Your task to perform on an android device: check out phone information Image 0: 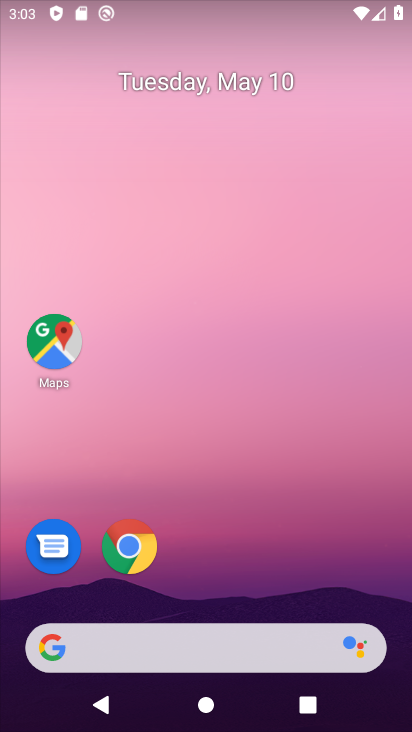
Step 0: drag from (219, 593) to (338, 14)
Your task to perform on an android device: check out phone information Image 1: 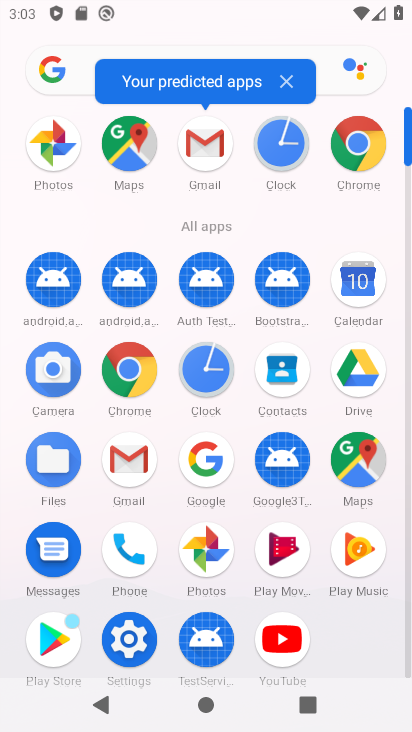
Step 1: click (127, 647)
Your task to perform on an android device: check out phone information Image 2: 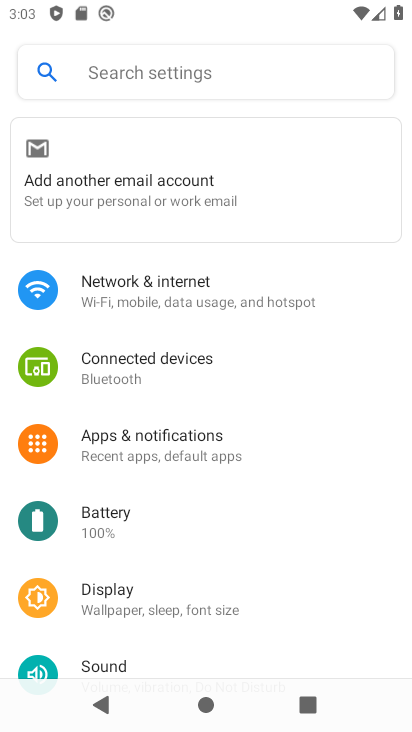
Step 2: drag from (140, 493) to (180, 269)
Your task to perform on an android device: check out phone information Image 3: 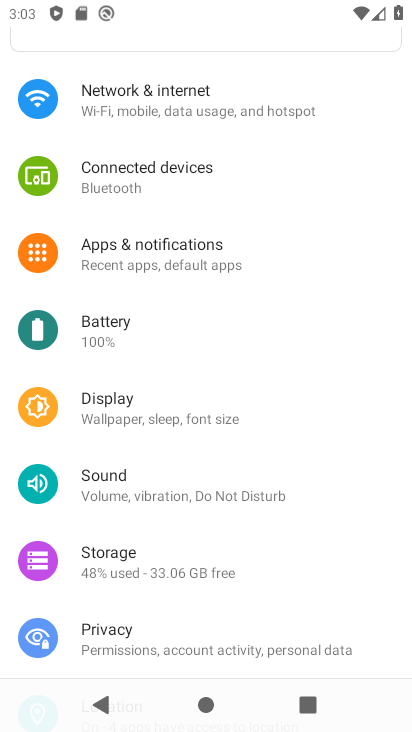
Step 3: drag from (151, 590) to (204, 214)
Your task to perform on an android device: check out phone information Image 4: 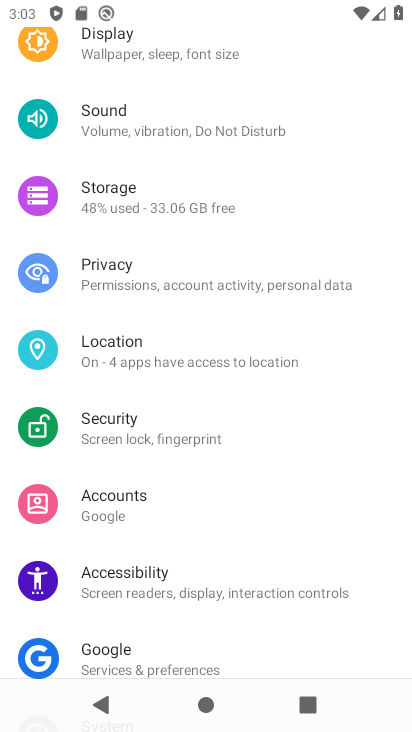
Step 4: drag from (158, 593) to (180, 275)
Your task to perform on an android device: check out phone information Image 5: 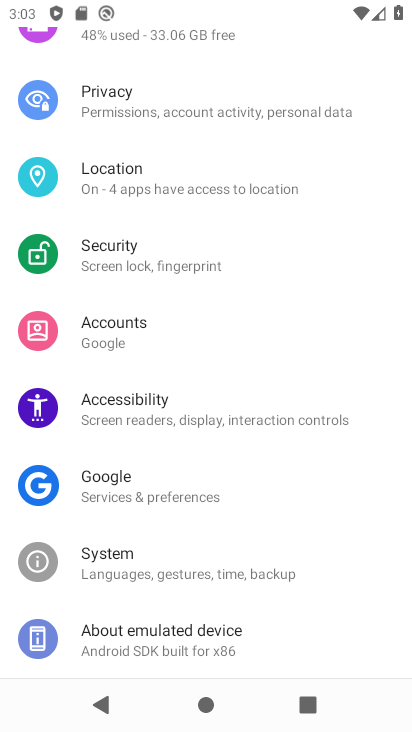
Step 5: click (164, 639)
Your task to perform on an android device: check out phone information Image 6: 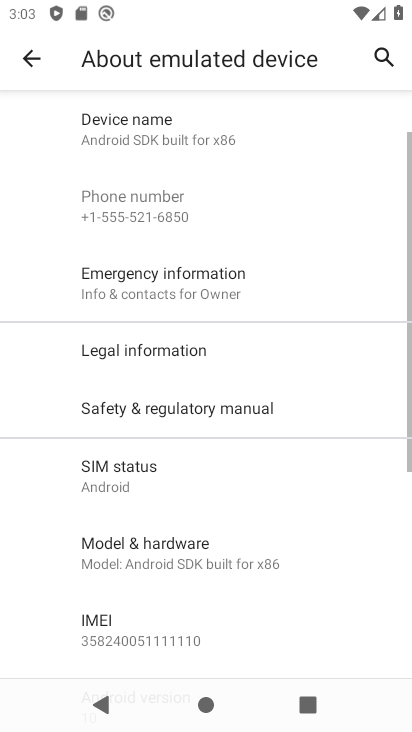
Step 6: task complete